Your task to perform on an android device: turn off notifications settings in the gmail app Image 0: 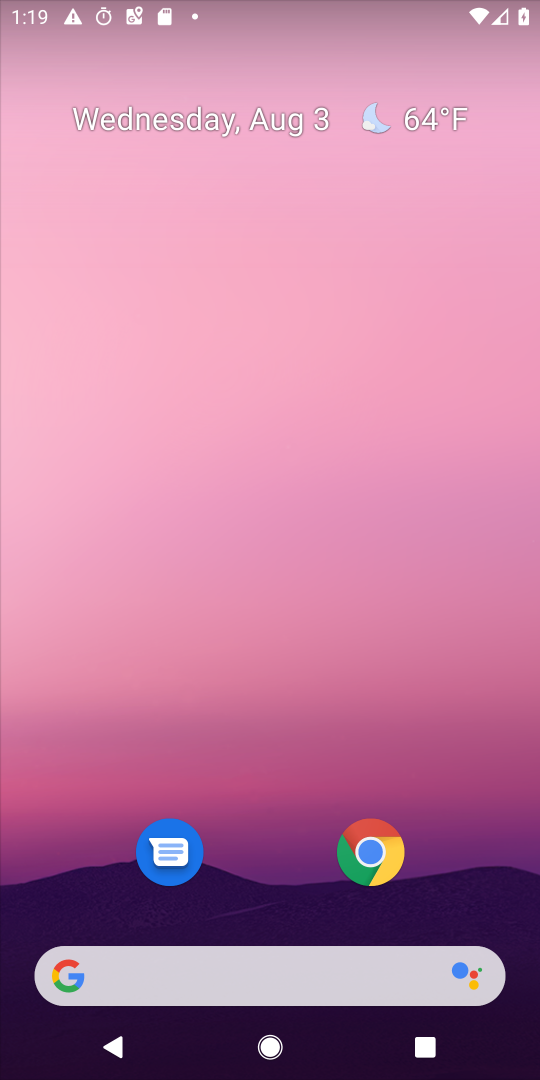
Step 0: drag from (441, 809) to (223, 64)
Your task to perform on an android device: turn off notifications settings in the gmail app Image 1: 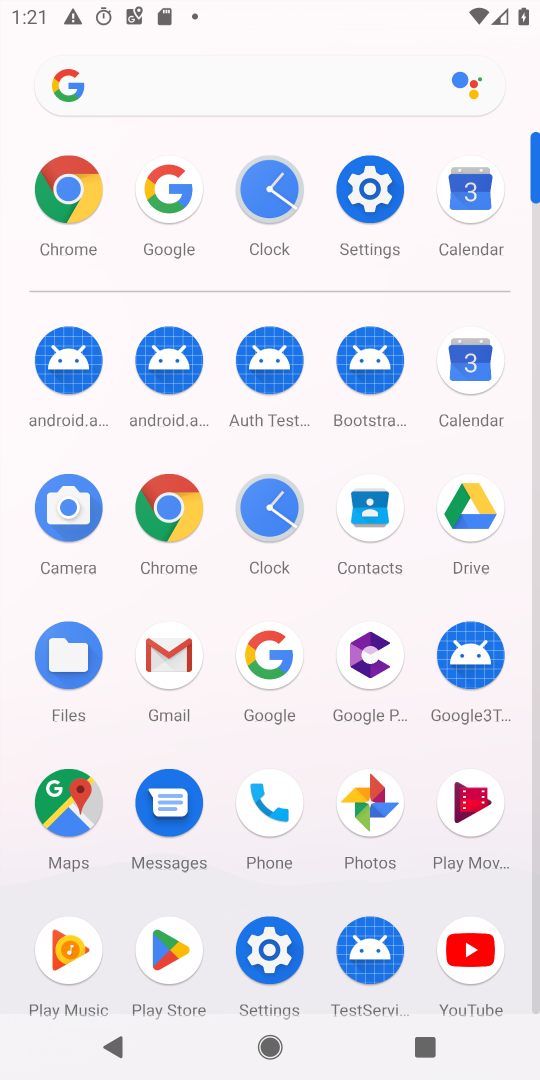
Step 1: click (157, 672)
Your task to perform on an android device: turn off notifications settings in the gmail app Image 2: 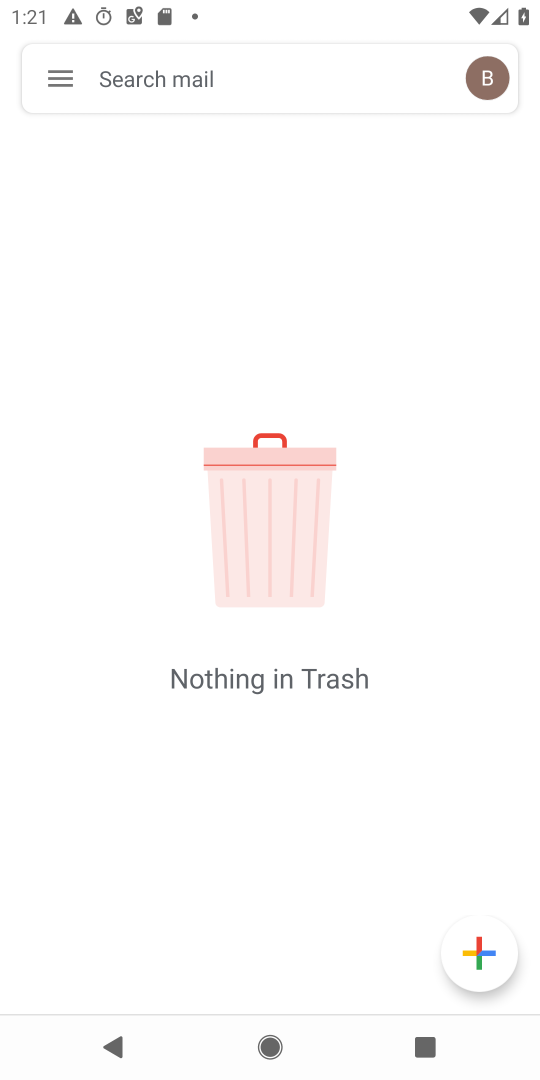
Step 2: click (62, 74)
Your task to perform on an android device: turn off notifications settings in the gmail app Image 3: 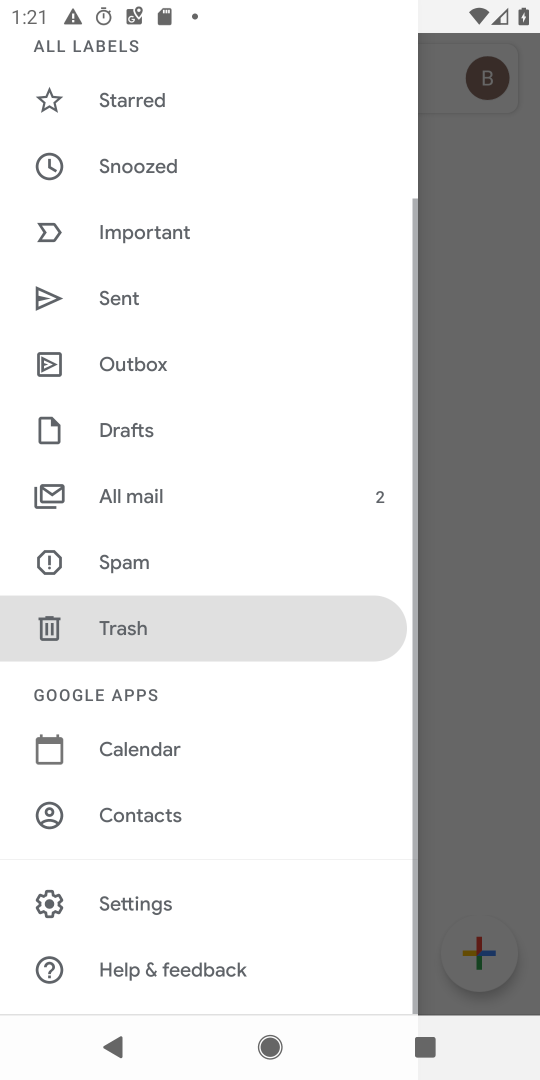
Step 3: drag from (107, 965) to (179, 206)
Your task to perform on an android device: turn off notifications settings in the gmail app Image 4: 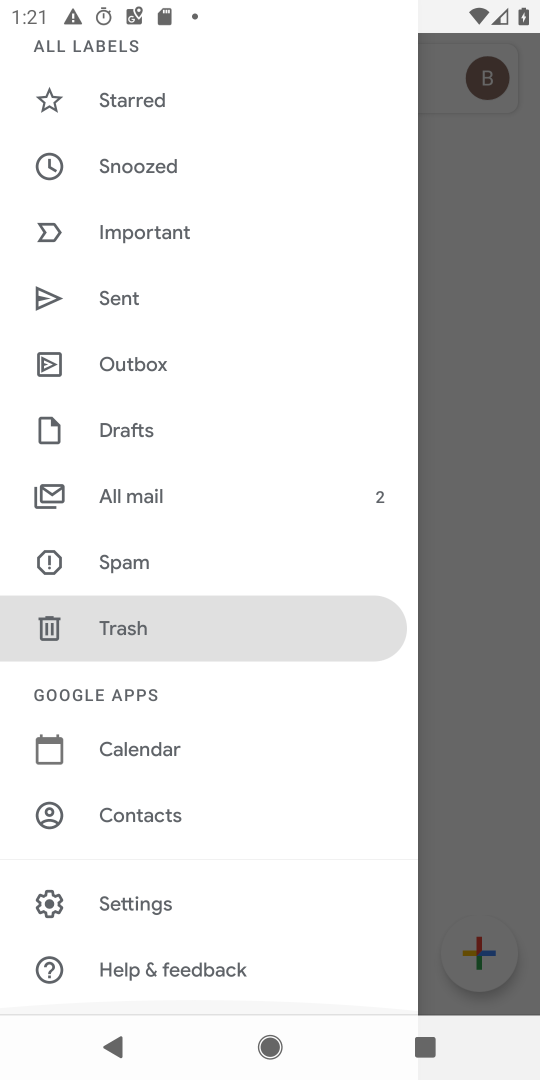
Step 4: click (87, 923)
Your task to perform on an android device: turn off notifications settings in the gmail app Image 5: 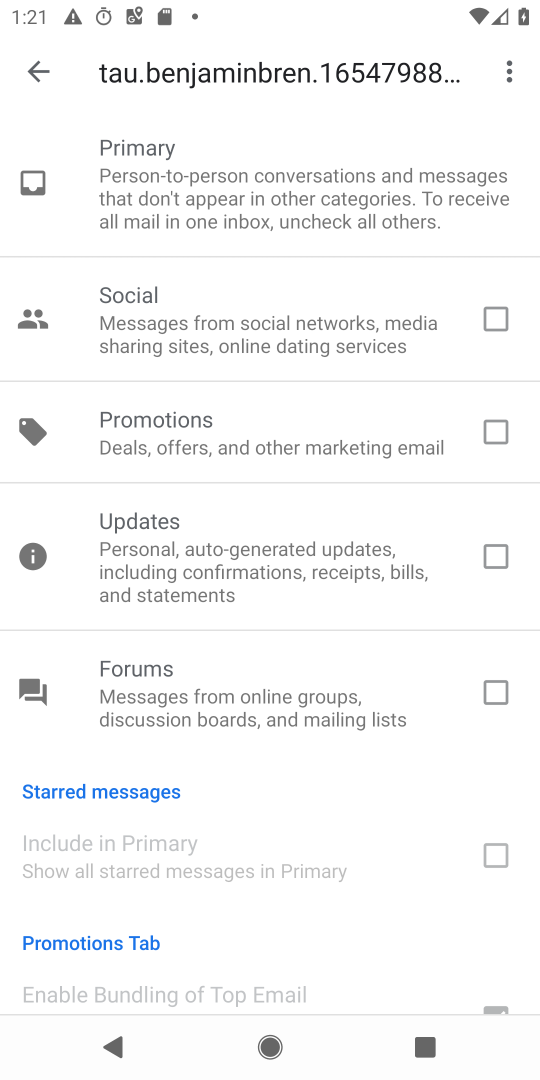
Step 5: drag from (262, 347) to (328, 1038)
Your task to perform on an android device: turn off notifications settings in the gmail app Image 6: 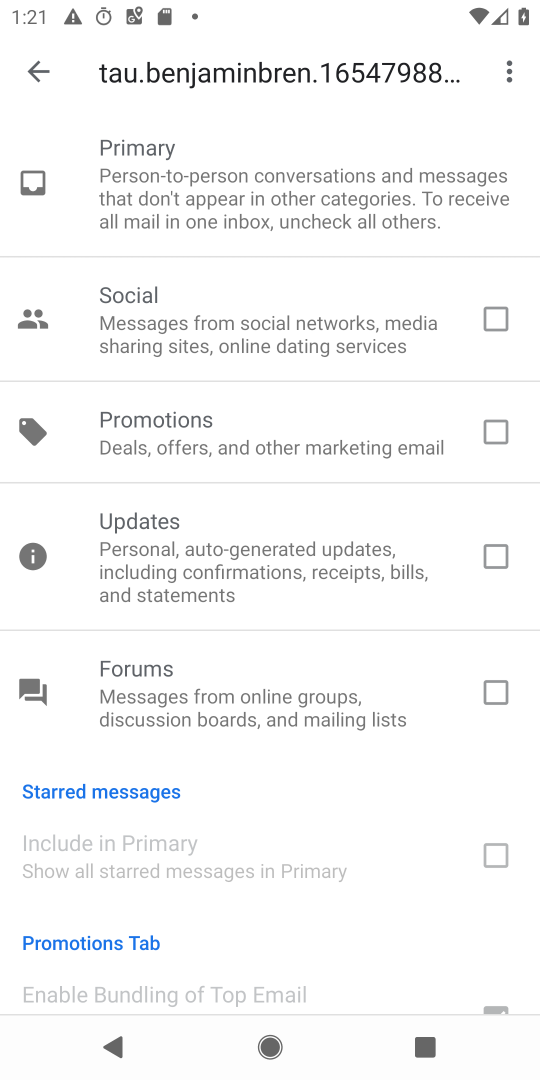
Step 6: press back button
Your task to perform on an android device: turn off notifications settings in the gmail app Image 7: 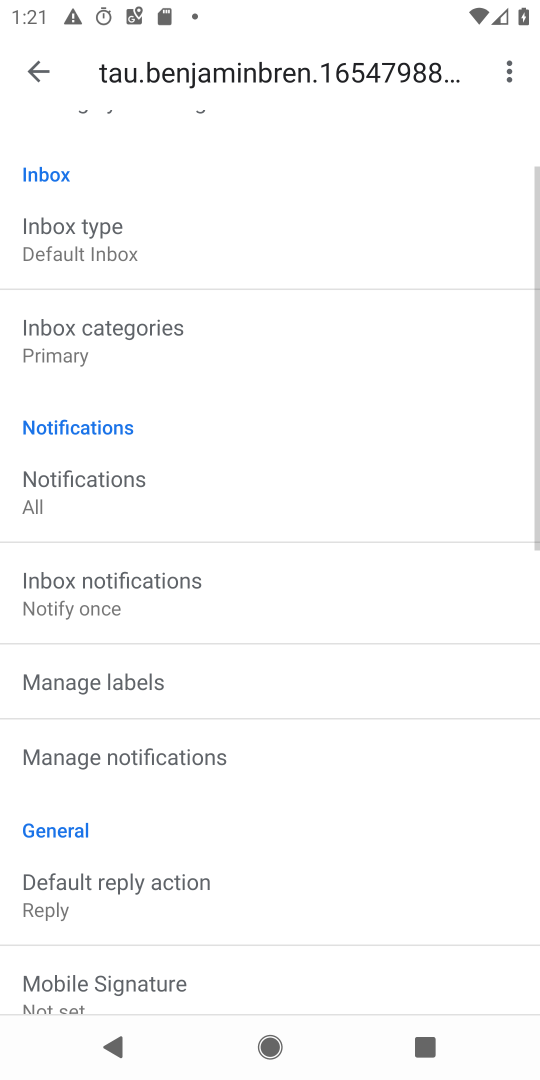
Step 7: click (78, 500)
Your task to perform on an android device: turn off notifications settings in the gmail app Image 8: 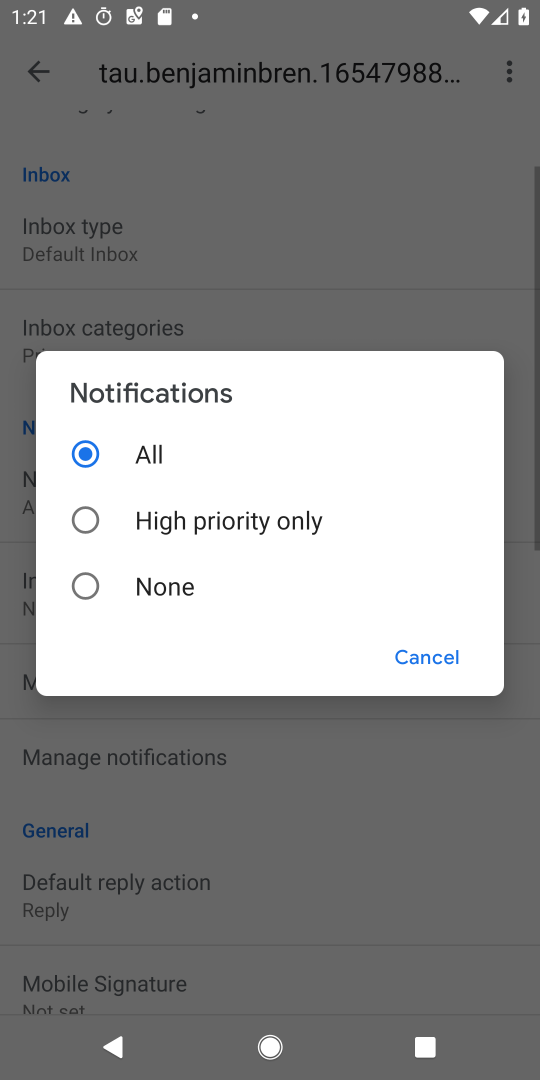
Step 8: click (152, 578)
Your task to perform on an android device: turn off notifications settings in the gmail app Image 9: 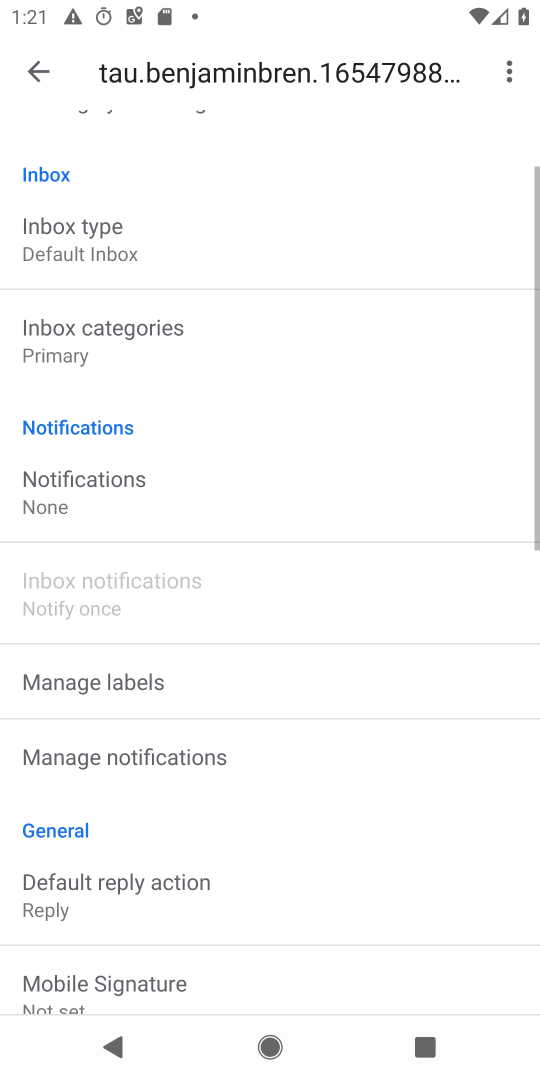
Step 9: task complete